Your task to perform on an android device: Search for "razer blade" on target, select the first entry, and add it to the cart. Image 0: 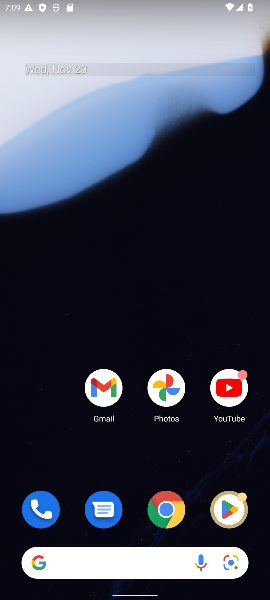
Step 0: click (151, 515)
Your task to perform on an android device: Search for "razer blade" on target, select the first entry, and add it to the cart. Image 1: 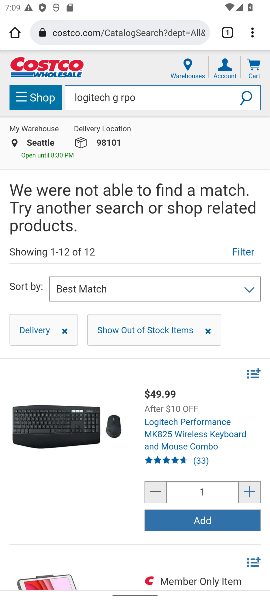
Step 1: click (133, 32)
Your task to perform on an android device: Search for "razer blade" on target, select the first entry, and add it to the cart. Image 2: 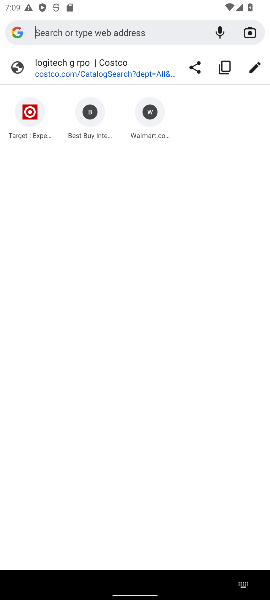
Step 2: type "target"
Your task to perform on an android device: Search for "razer blade" on target, select the first entry, and add it to the cart. Image 3: 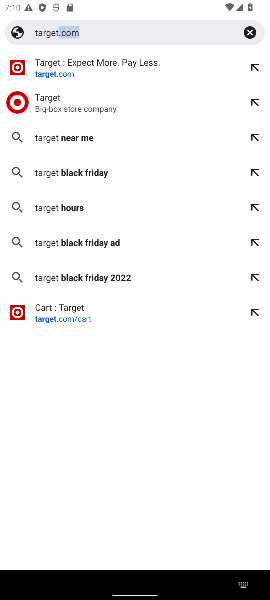
Step 3: click (124, 61)
Your task to perform on an android device: Search for "razer blade" on target, select the first entry, and add it to the cart. Image 4: 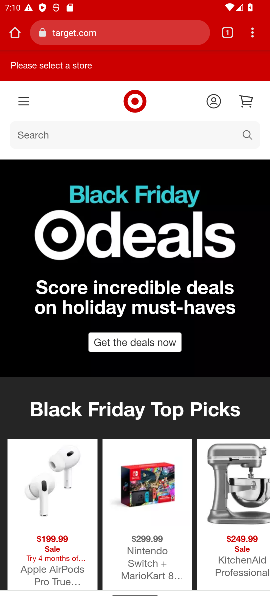
Step 4: click (131, 136)
Your task to perform on an android device: Search for "razer blade" on target, select the first entry, and add it to the cart. Image 5: 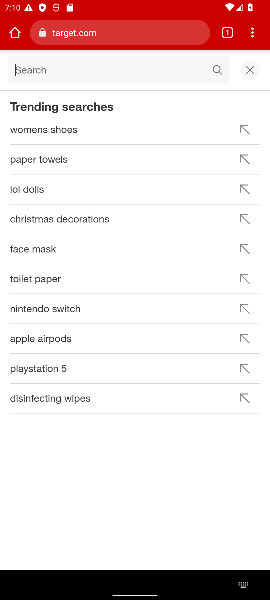
Step 5: type "razer blade"
Your task to perform on an android device: Search for "razer blade" on target, select the first entry, and add it to the cart. Image 6: 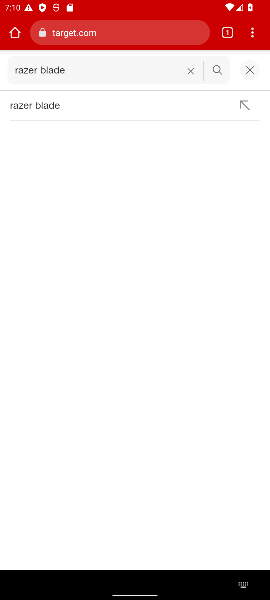
Step 6: click (101, 100)
Your task to perform on an android device: Search for "razer blade" on target, select the first entry, and add it to the cart. Image 7: 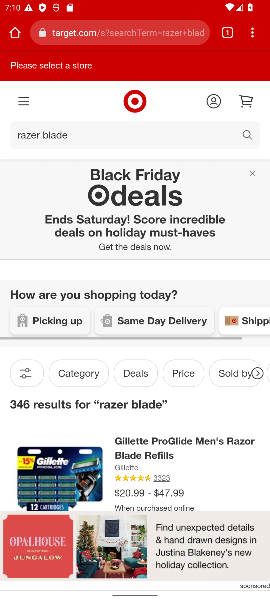
Step 7: drag from (187, 479) to (153, 247)
Your task to perform on an android device: Search for "razer blade" on target, select the first entry, and add it to the cart. Image 8: 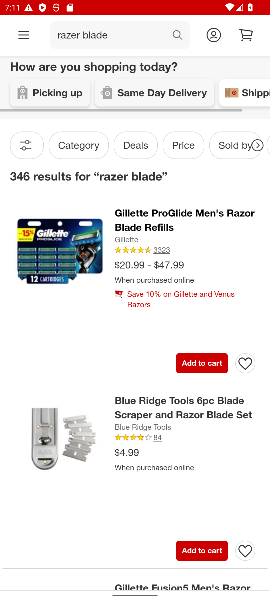
Step 8: click (201, 360)
Your task to perform on an android device: Search for "razer blade" on target, select the first entry, and add it to the cart. Image 9: 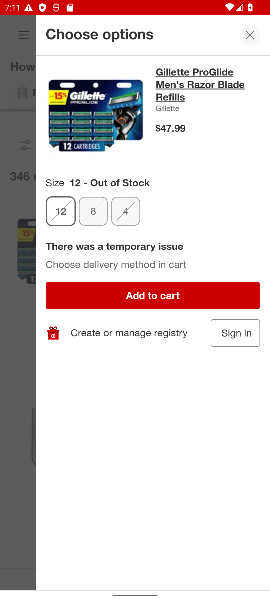
Step 9: click (191, 292)
Your task to perform on an android device: Search for "razer blade" on target, select the first entry, and add it to the cart. Image 10: 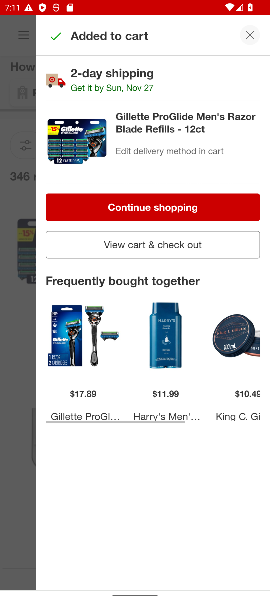
Step 10: task complete